Your task to perform on an android device: Go to wifi settings Image 0: 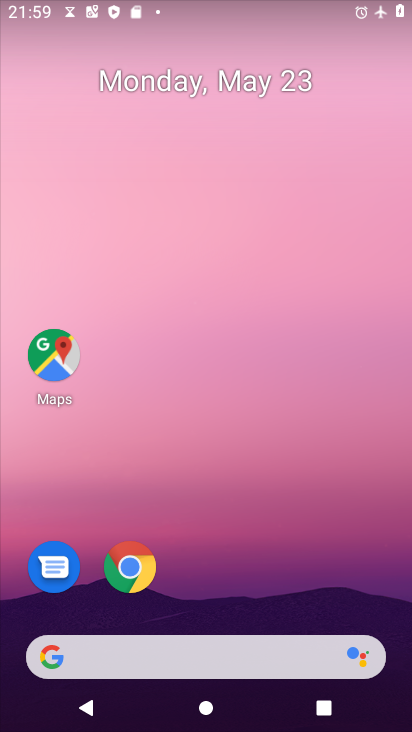
Step 0: drag from (256, 596) to (223, 188)
Your task to perform on an android device: Go to wifi settings Image 1: 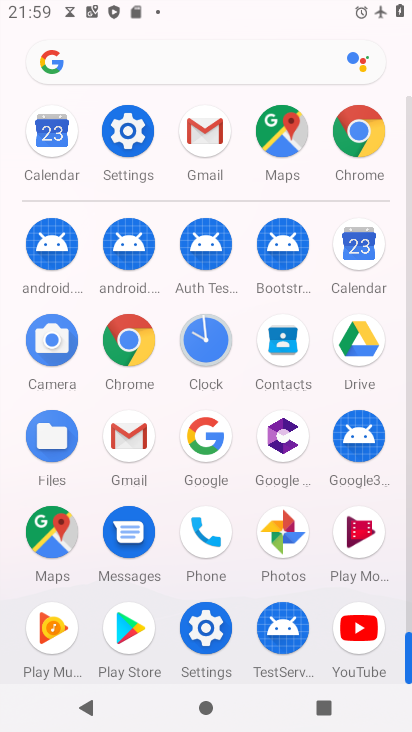
Step 1: click (117, 128)
Your task to perform on an android device: Go to wifi settings Image 2: 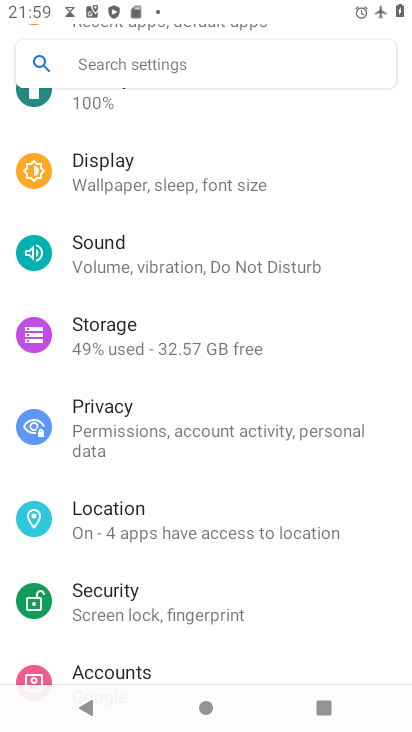
Step 2: drag from (220, 176) to (194, 608)
Your task to perform on an android device: Go to wifi settings Image 3: 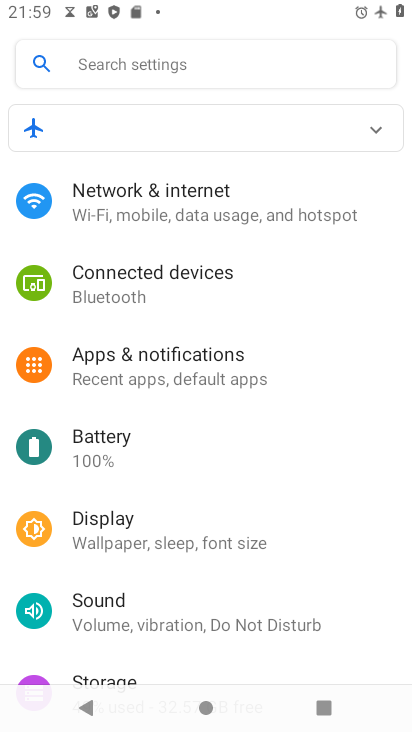
Step 3: click (200, 203)
Your task to perform on an android device: Go to wifi settings Image 4: 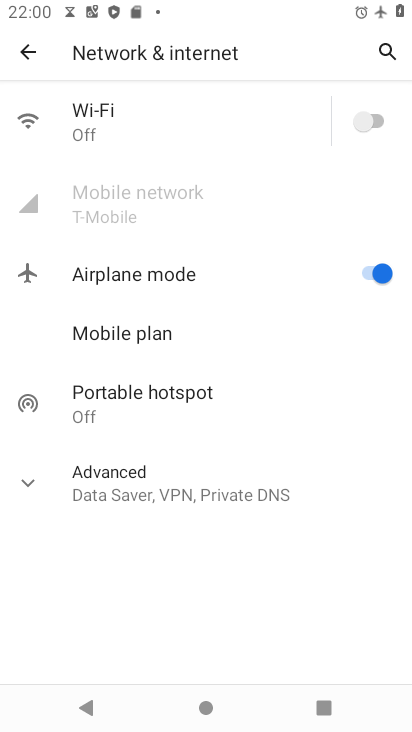
Step 4: task complete